Your task to perform on an android device: Go to privacy settings Image 0: 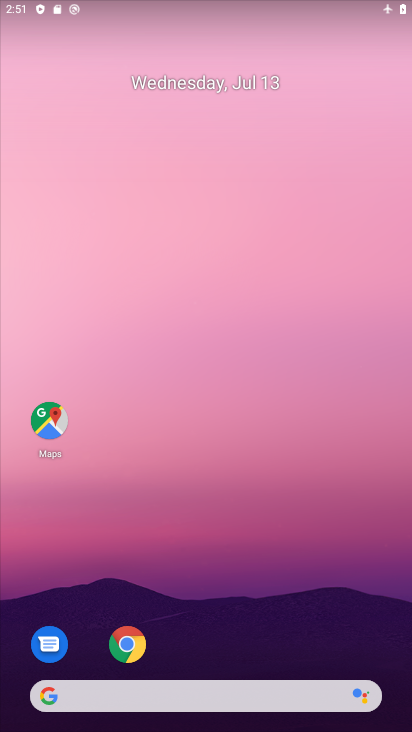
Step 0: drag from (207, 697) to (294, 44)
Your task to perform on an android device: Go to privacy settings Image 1: 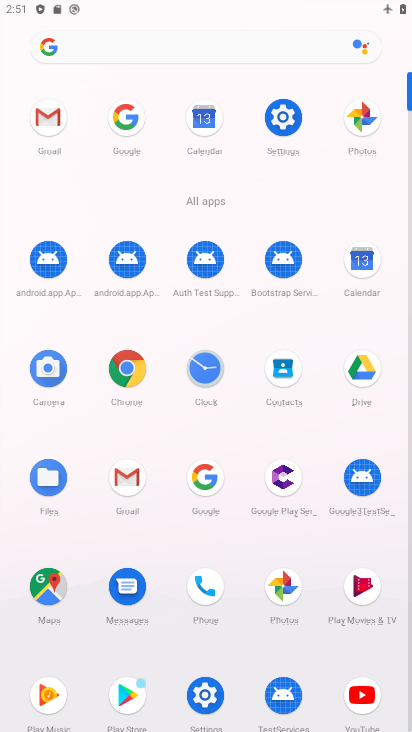
Step 1: click (283, 118)
Your task to perform on an android device: Go to privacy settings Image 2: 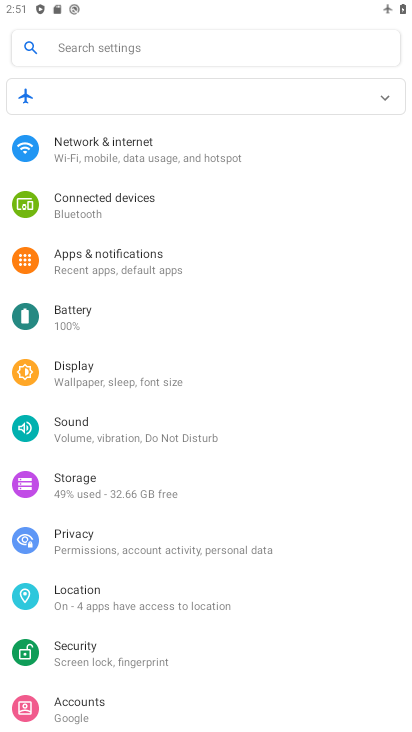
Step 2: click (81, 536)
Your task to perform on an android device: Go to privacy settings Image 3: 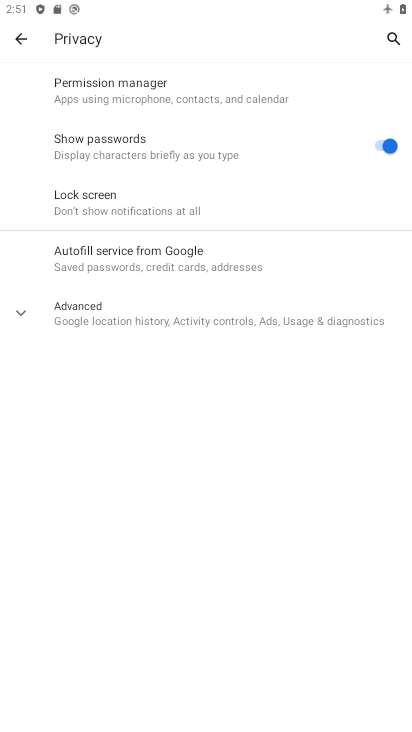
Step 3: task complete